Your task to perform on an android device: allow cookies in the chrome app Image 0: 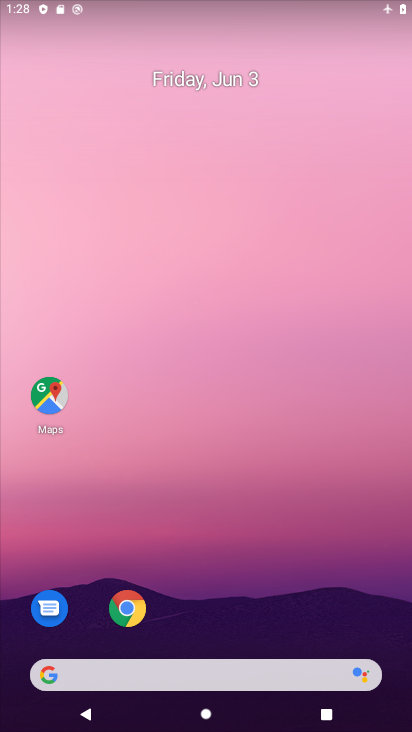
Step 0: click (127, 625)
Your task to perform on an android device: allow cookies in the chrome app Image 1: 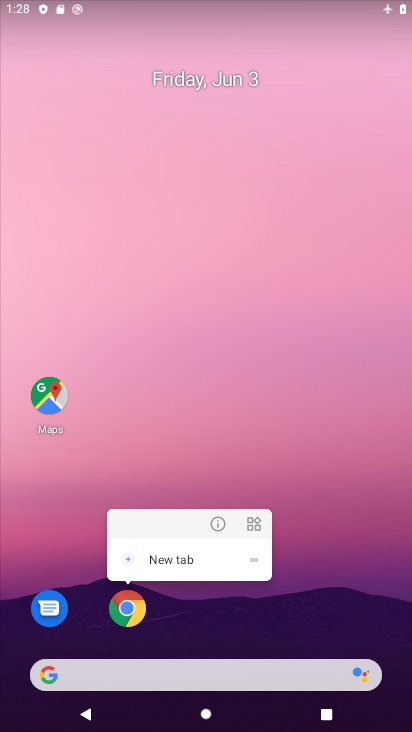
Step 1: click (129, 620)
Your task to perform on an android device: allow cookies in the chrome app Image 2: 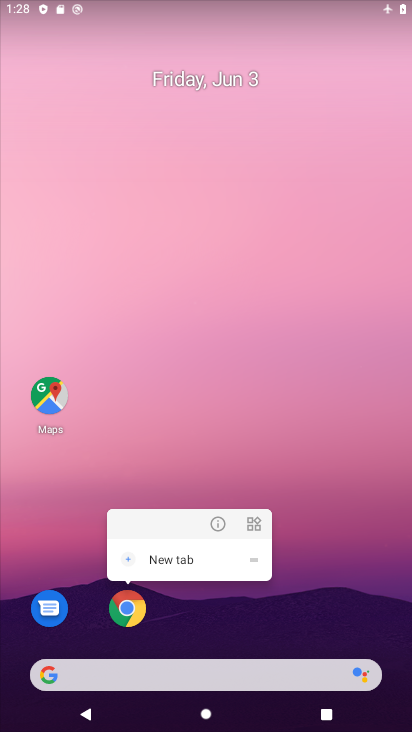
Step 2: click (130, 619)
Your task to perform on an android device: allow cookies in the chrome app Image 3: 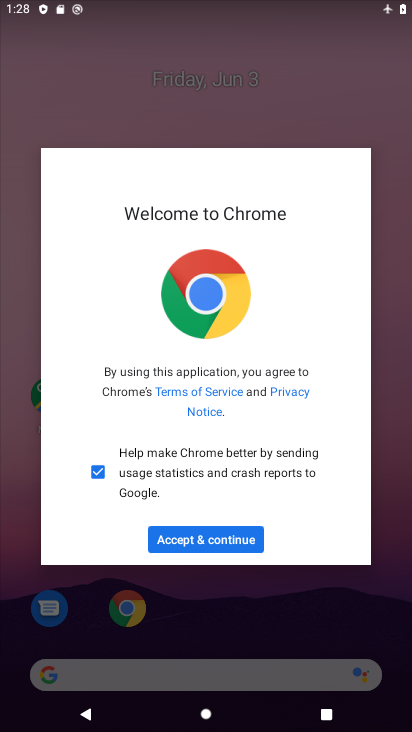
Step 3: click (198, 533)
Your task to perform on an android device: allow cookies in the chrome app Image 4: 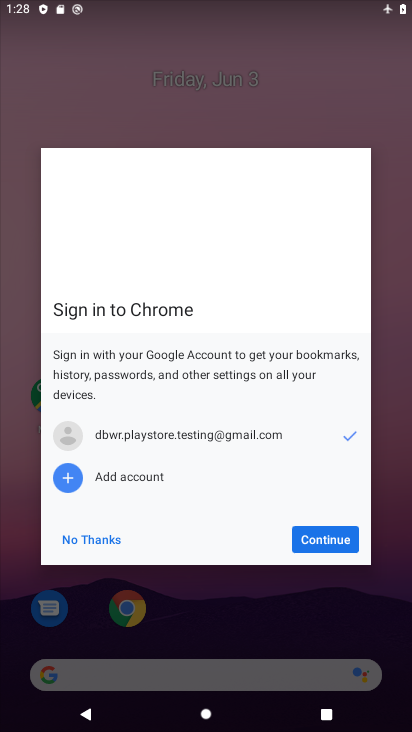
Step 4: click (321, 532)
Your task to perform on an android device: allow cookies in the chrome app Image 5: 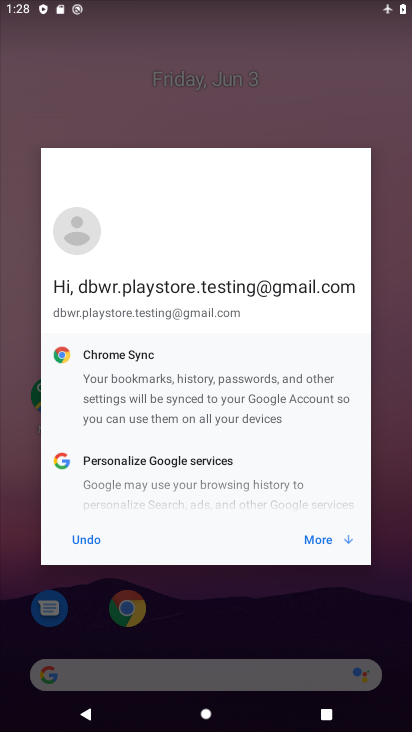
Step 5: click (327, 539)
Your task to perform on an android device: allow cookies in the chrome app Image 6: 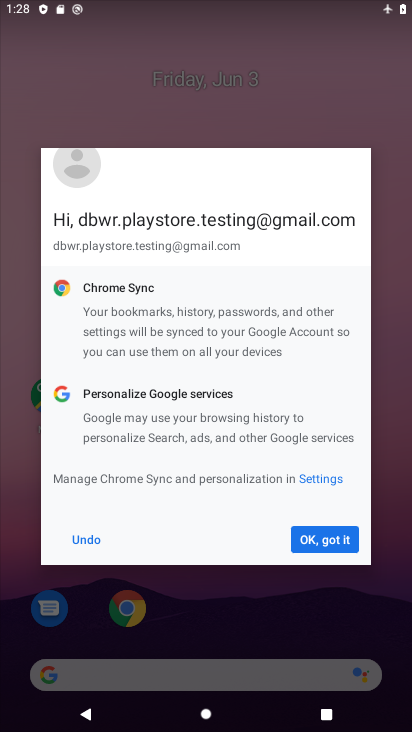
Step 6: click (326, 540)
Your task to perform on an android device: allow cookies in the chrome app Image 7: 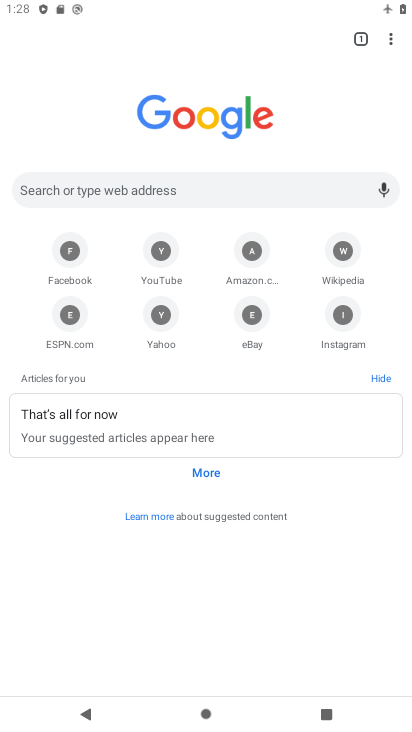
Step 7: drag from (393, 40) to (292, 330)
Your task to perform on an android device: allow cookies in the chrome app Image 8: 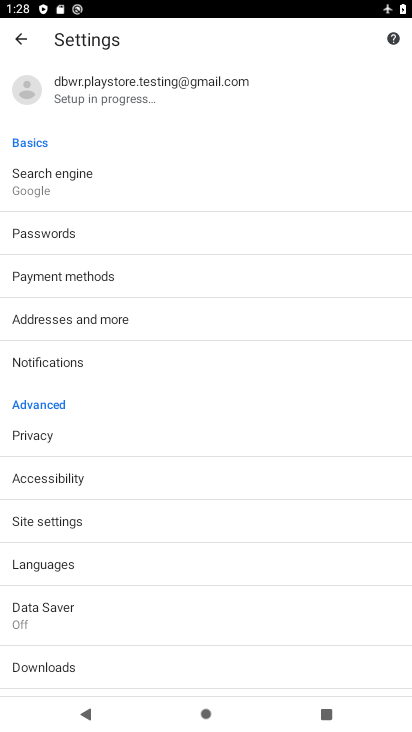
Step 8: click (148, 514)
Your task to perform on an android device: allow cookies in the chrome app Image 9: 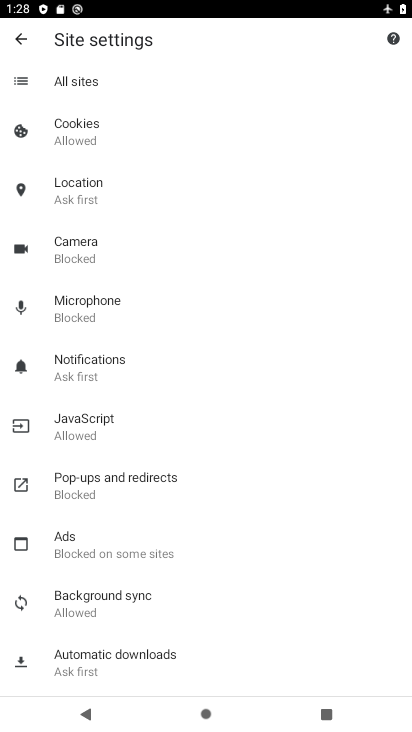
Step 9: task complete